Your task to perform on an android device: Go to Google maps Image 0: 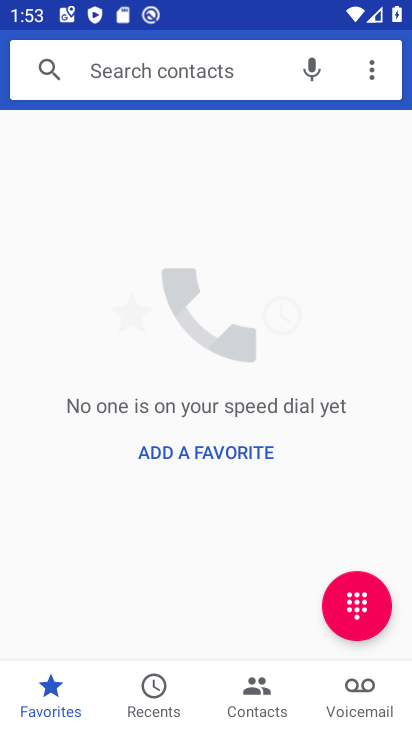
Step 0: press home button
Your task to perform on an android device: Go to Google maps Image 1: 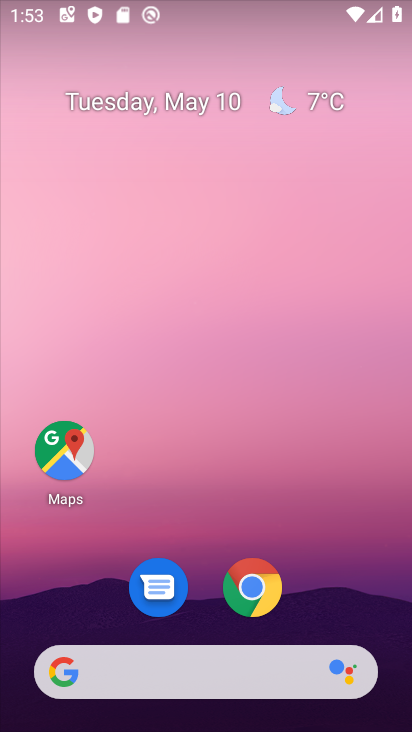
Step 1: click (71, 445)
Your task to perform on an android device: Go to Google maps Image 2: 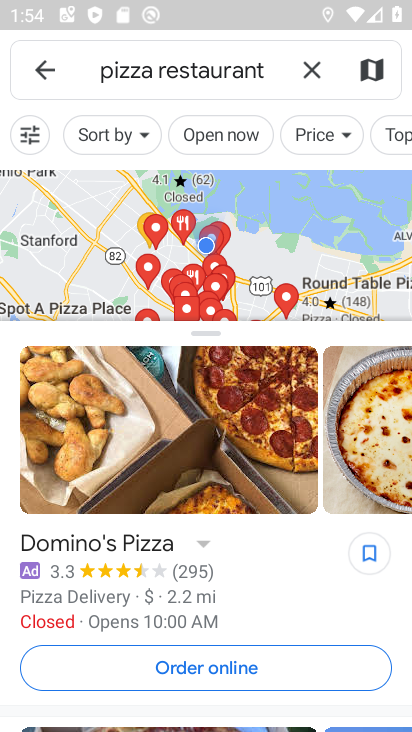
Step 2: task complete